Your task to perform on an android device: turn notification dots off Image 0: 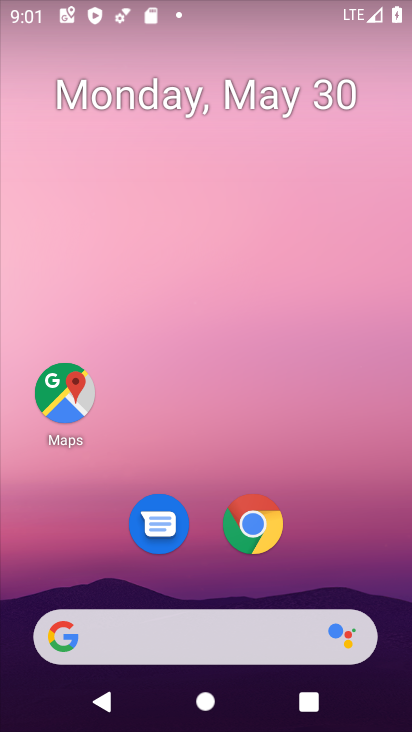
Step 0: drag from (320, 555) to (318, 0)
Your task to perform on an android device: turn notification dots off Image 1: 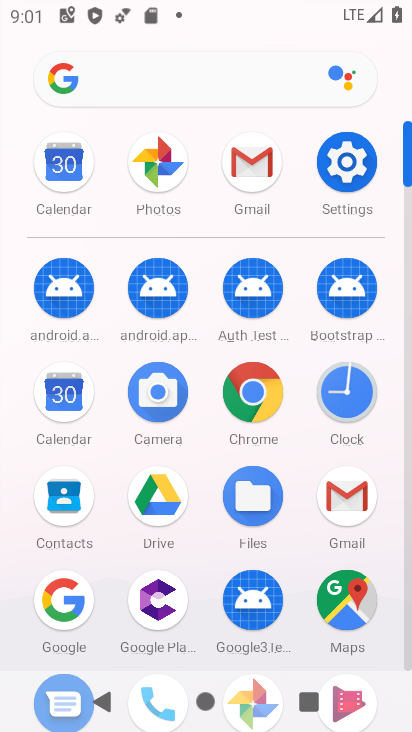
Step 1: click (350, 157)
Your task to perform on an android device: turn notification dots off Image 2: 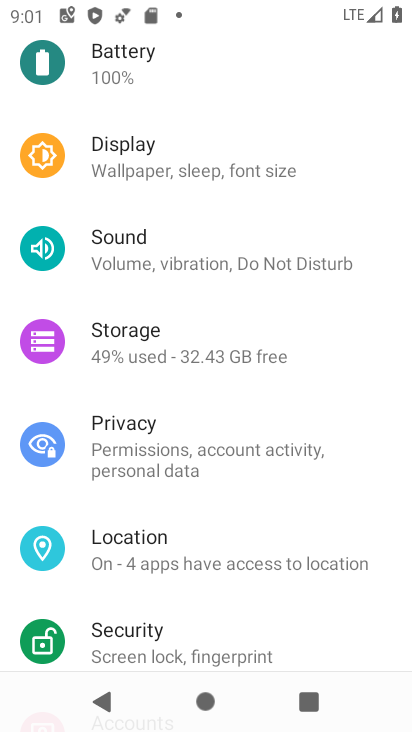
Step 2: drag from (223, 214) to (203, 576)
Your task to perform on an android device: turn notification dots off Image 3: 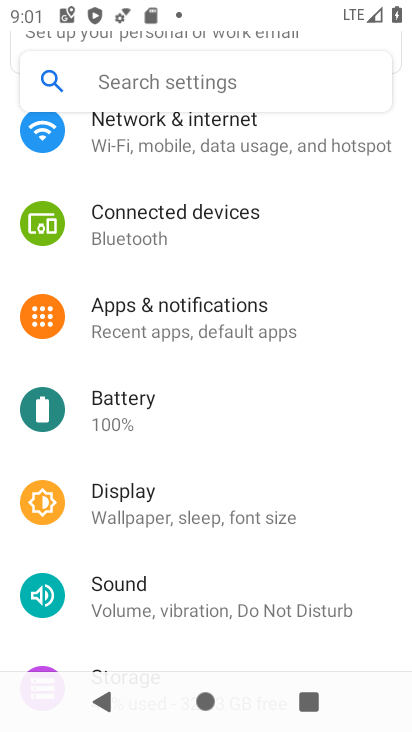
Step 3: click (208, 319)
Your task to perform on an android device: turn notification dots off Image 4: 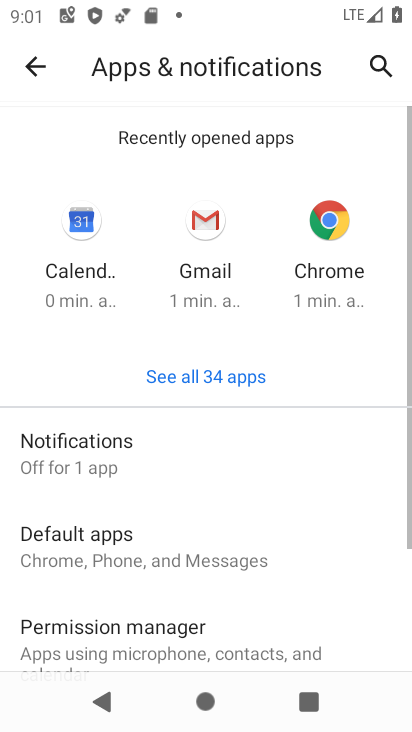
Step 4: click (165, 444)
Your task to perform on an android device: turn notification dots off Image 5: 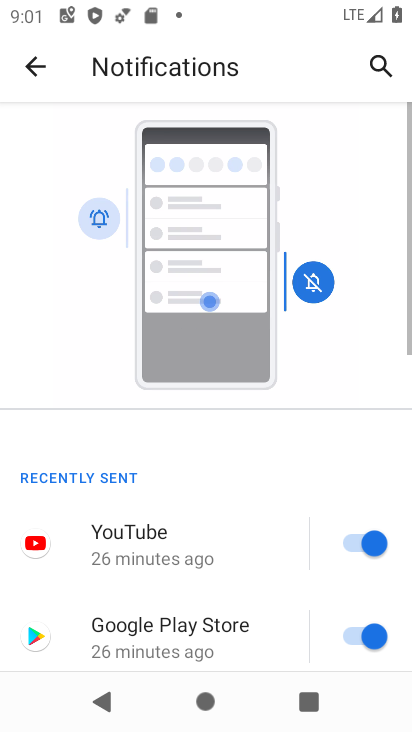
Step 5: drag from (279, 544) to (314, 47)
Your task to perform on an android device: turn notification dots off Image 6: 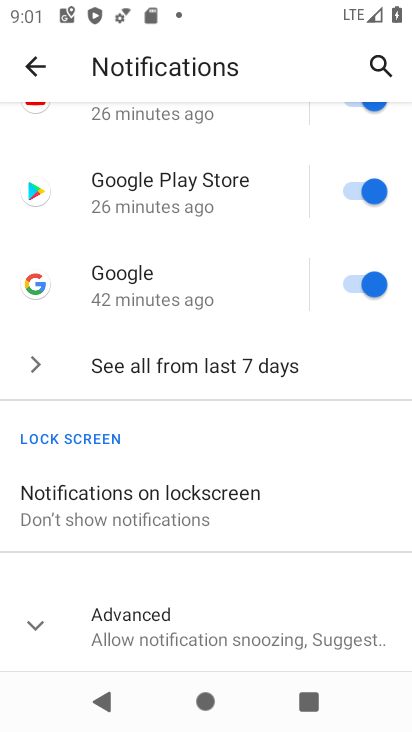
Step 6: click (29, 616)
Your task to perform on an android device: turn notification dots off Image 7: 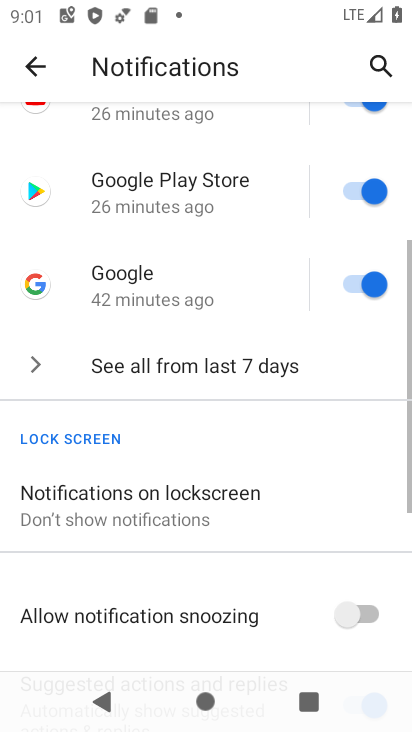
Step 7: drag from (199, 551) to (237, 231)
Your task to perform on an android device: turn notification dots off Image 8: 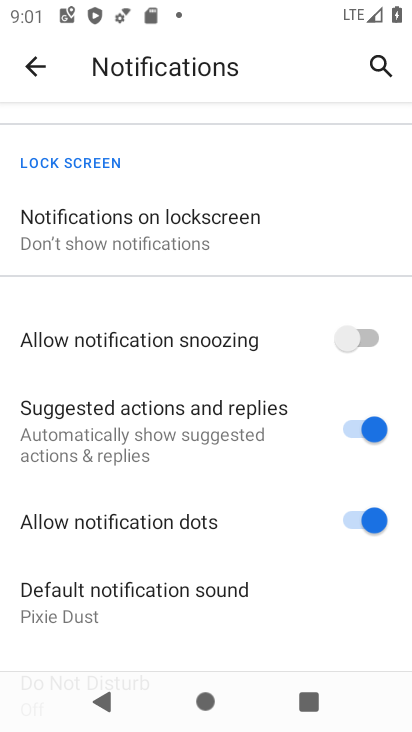
Step 8: click (357, 513)
Your task to perform on an android device: turn notification dots off Image 9: 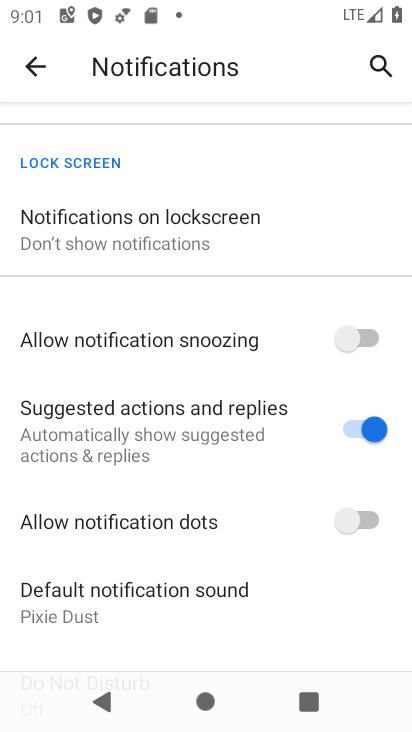
Step 9: task complete